Your task to perform on an android device: toggle airplane mode Image 0: 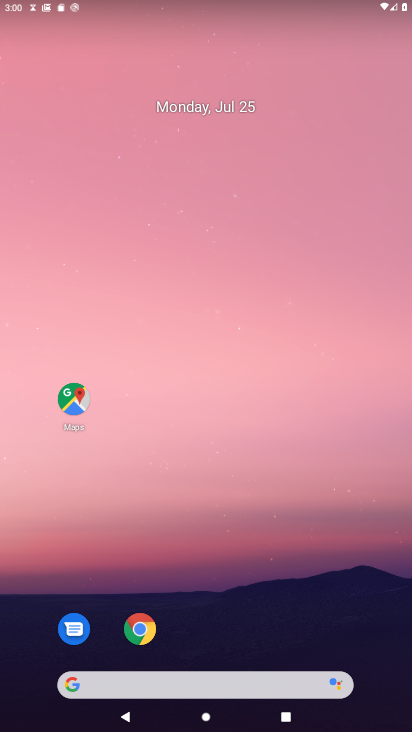
Step 0: drag from (336, 629) to (262, 180)
Your task to perform on an android device: toggle airplane mode Image 1: 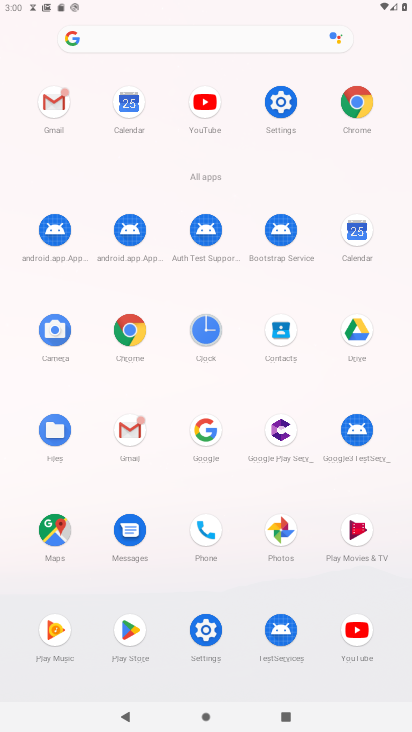
Step 1: click (279, 102)
Your task to perform on an android device: toggle airplane mode Image 2: 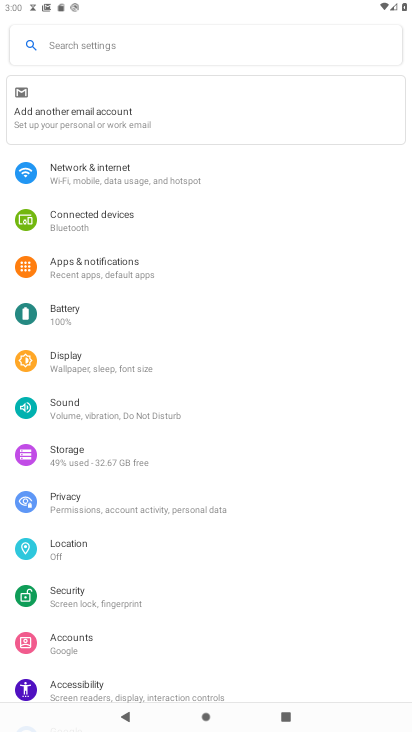
Step 2: click (225, 168)
Your task to perform on an android device: toggle airplane mode Image 3: 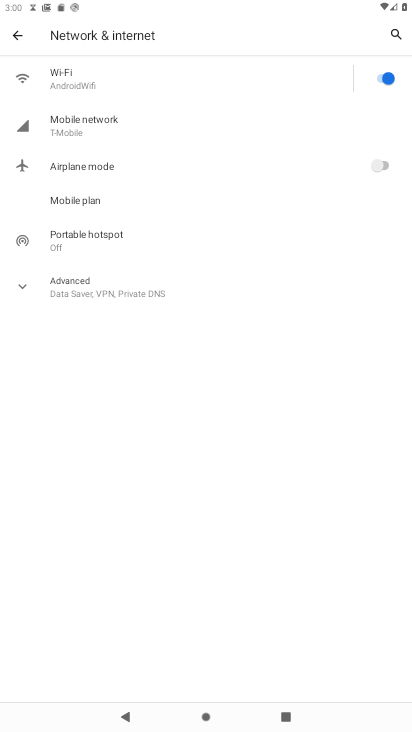
Step 3: click (377, 166)
Your task to perform on an android device: toggle airplane mode Image 4: 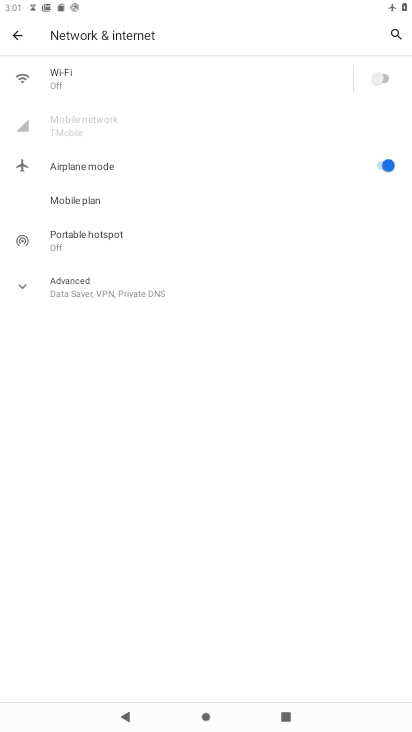
Step 4: task complete